Your task to perform on an android device: snooze an email in the gmail app Image 0: 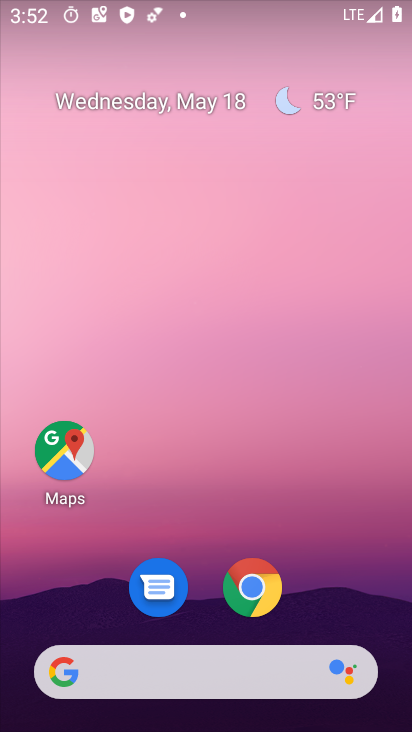
Step 0: drag from (235, 649) to (241, 255)
Your task to perform on an android device: snooze an email in the gmail app Image 1: 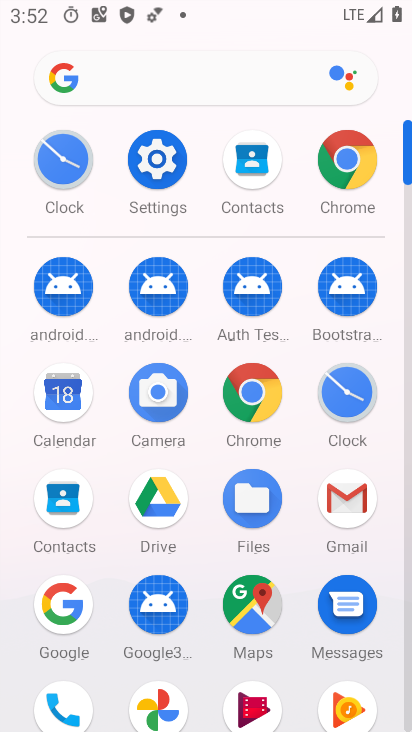
Step 1: click (350, 516)
Your task to perform on an android device: snooze an email in the gmail app Image 2: 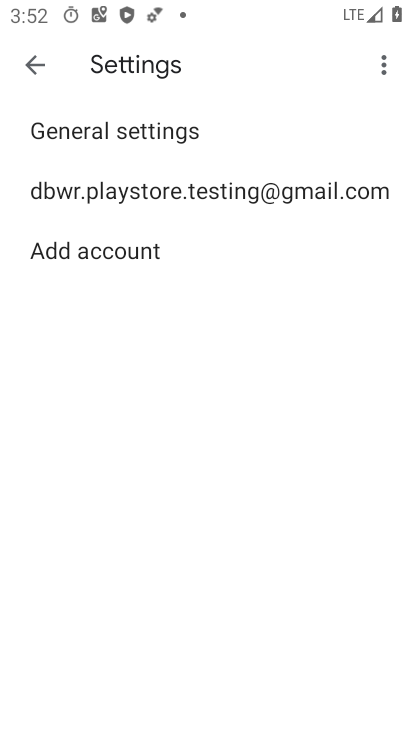
Step 2: click (18, 62)
Your task to perform on an android device: snooze an email in the gmail app Image 3: 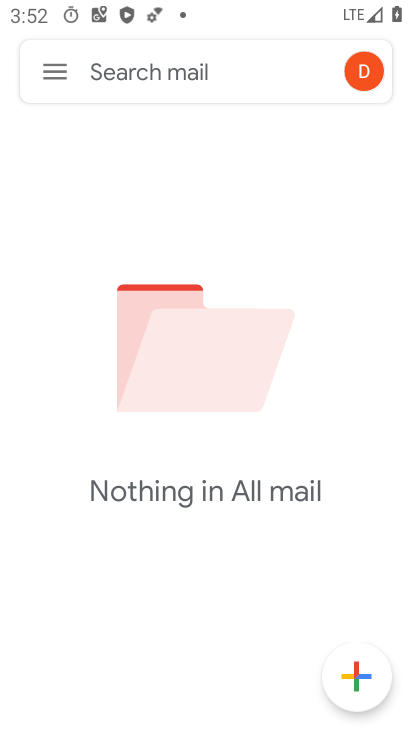
Step 3: task complete